Your task to perform on an android device: open the mobile data screen to see how much data has been used Image 0: 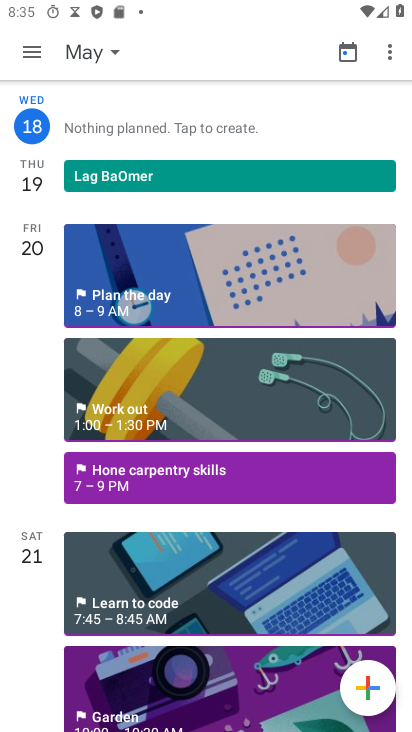
Step 0: press home button
Your task to perform on an android device: open the mobile data screen to see how much data has been used Image 1: 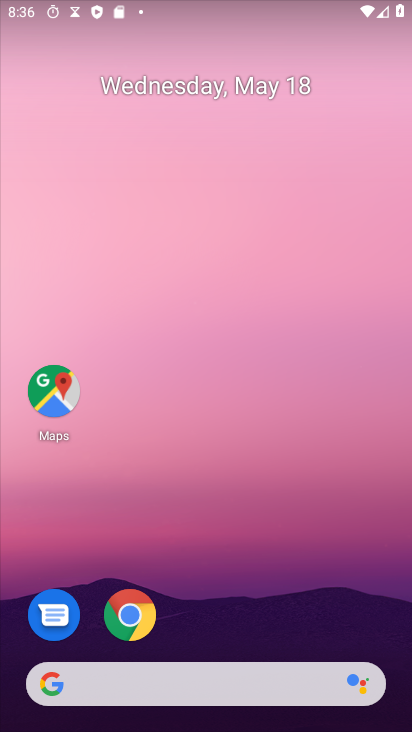
Step 1: click (339, 639)
Your task to perform on an android device: open the mobile data screen to see how much data has been used Image 2: 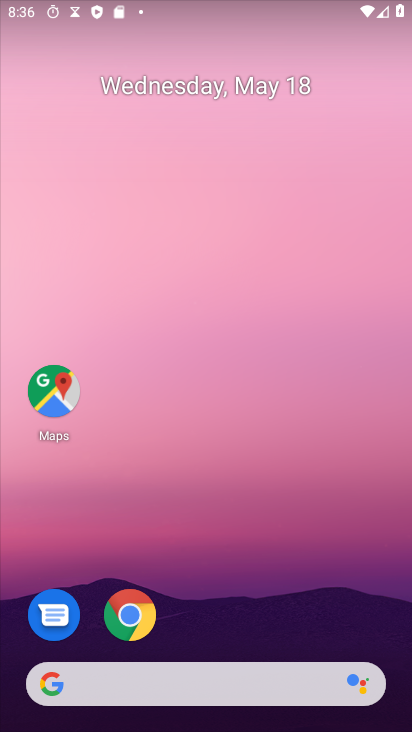
Step 2: drag from (329, 613) to (369, 59)
Your task to perform on an android device: open the mobile data screen to see how much data has been used Image 3: 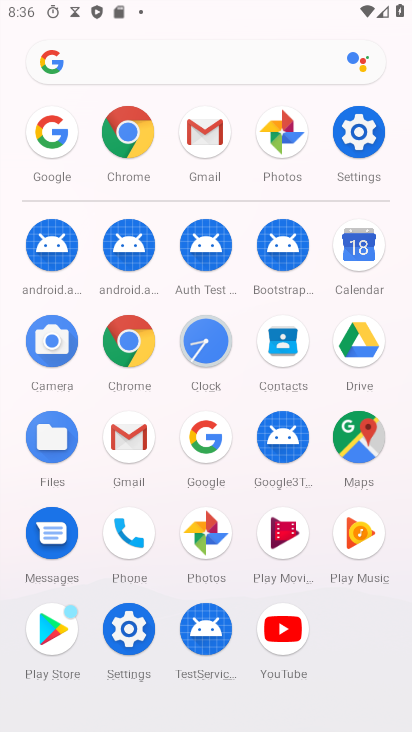
Step 3: click (362, 125)
Your task to perform on an android device: open the mobile data screen to see how much data has been used Image 4: 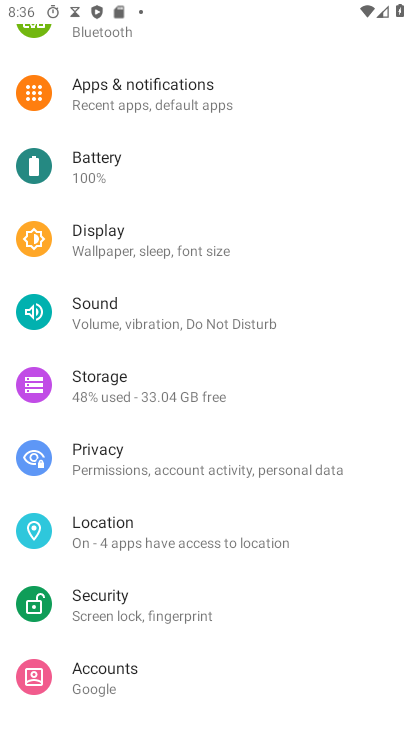
Step 4: drag from (222, 152) to (196, 521)
Your task to perform on an android device: open the mobile data screen to see how much data has been used Image 5: 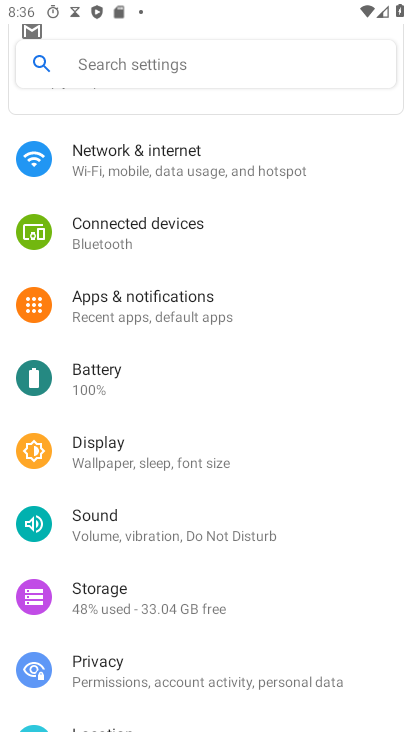
Step 5: click (156, 165)
Your task to perform on an android device: open the mobile data screen to see how much data has been used Image 6: 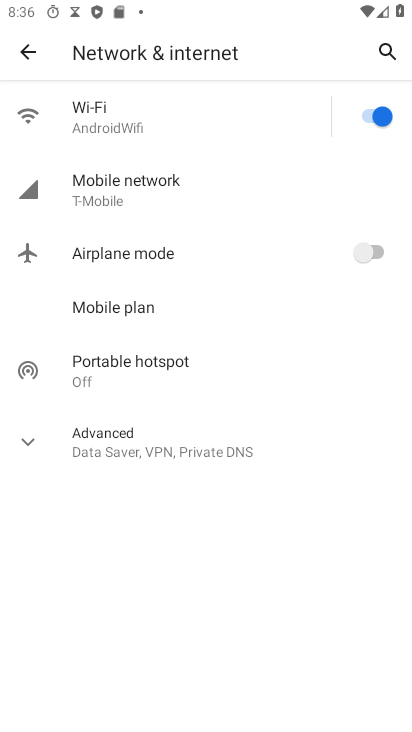
Step 6: click (140, 192)
Your task to perform on an android device: open the mobile data screen to see how much data has been used Image 7: 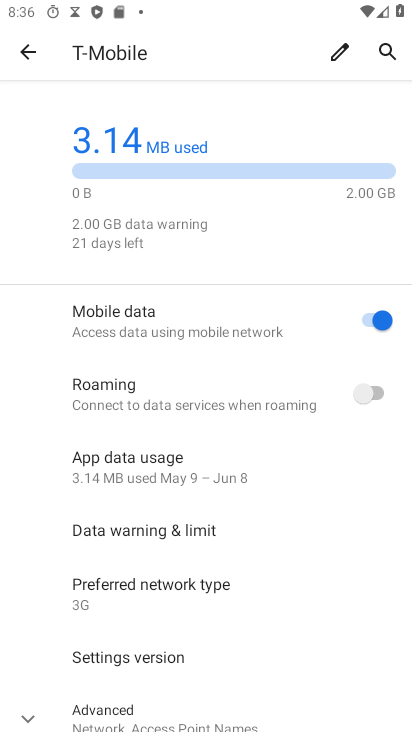
Step 7: click (173, 490)
Your task to perform on an android device: open the mobile data screen to see how much data has been used Image 8: 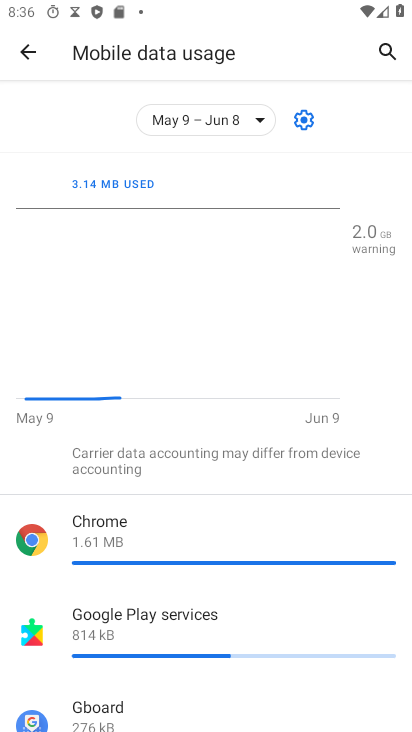
Step 8: task complete